Your task to perform on an android device: empty trash in google photos Image 0: 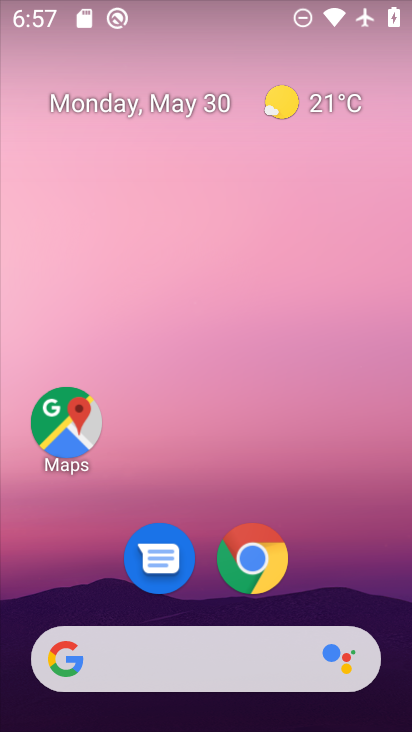
Step 0: drag from (338, 548) to (265, 103)
Your task to perform on an android device: empty trash in google photos Image 1: 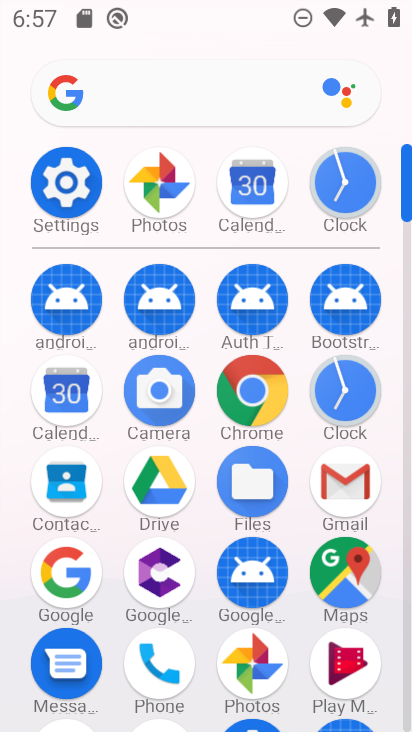
Step 1: click (160, 171)
Your task to perform on an android device: empty trash in google photos Image 2: 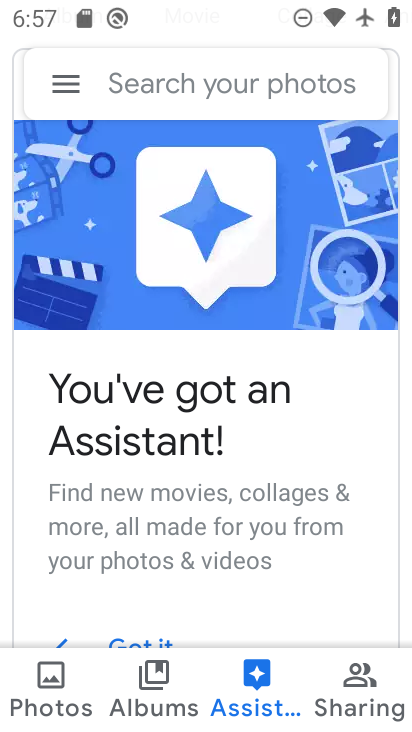
Step 2: click (54, 84)
Your task to perform on an android device: empty trash in google photos Image 3: 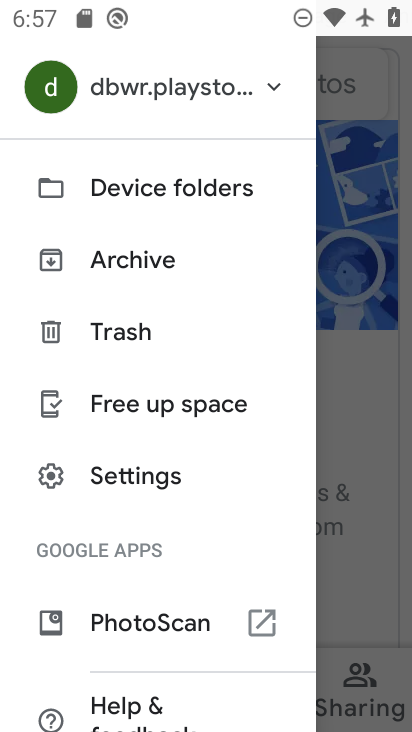
Step 3: click (94, 327)
Your task to perform on an android device: empty trash in google photos Image 4: 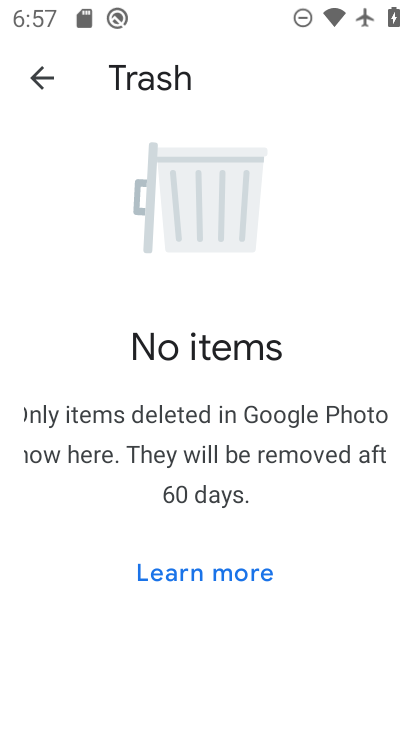
Step 4: task complete